Your task to perform on an android device: turn off picture-in-picture Image 0: 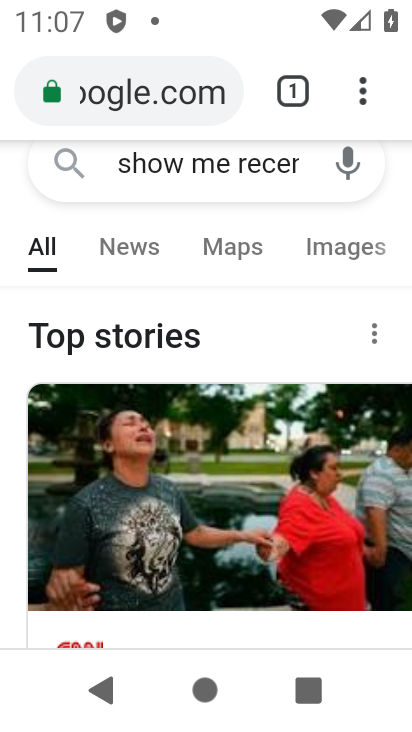
Step 0: press home button
Your task to perform on an android device: turn off picture-in-picture Image 1: 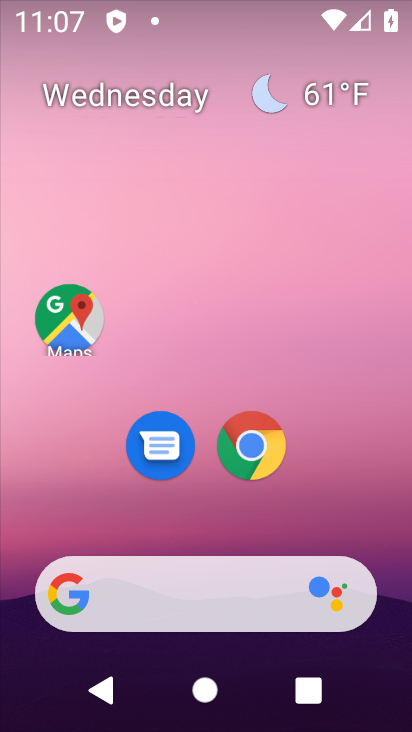
Step 1: drag from (362, 517) to (324, 140)
Your task to perform on an android device: turn off picture-in-picture Image 2: 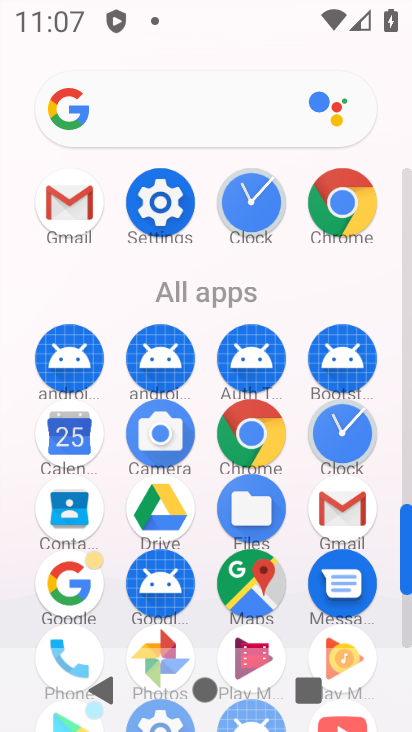
Step 2: click (155, 186)
Your task to perform on an android device: turn off picture-in-picture Image 3: 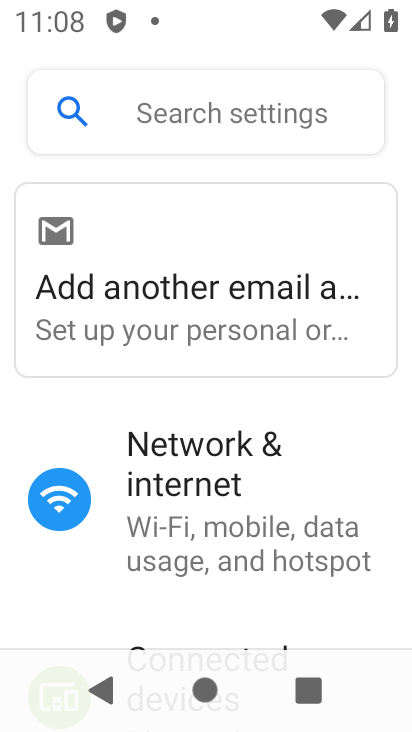
Step 3: drag from (254, 416) to (256, 280)
Your task to perform on an android device: turn off picture-in-picture Image 4: 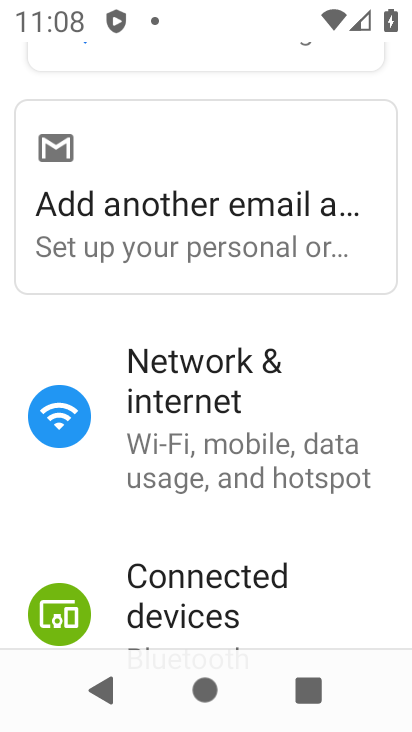
Step 4: drag from (288, 638) to (271, 298)
Your task to perform on an android device: turn off picture-in-picture Image 5: 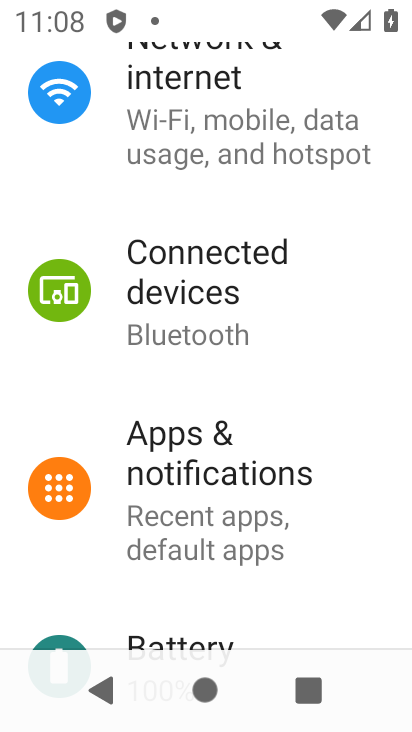
Step 5: click (215, 525)
Your task to perform on an android device: turn off picture-in-picture Image 6: 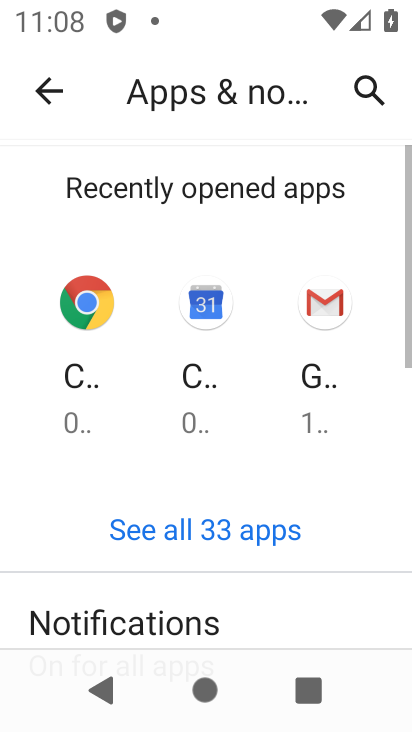
Step 6: drag from (242, 631) to (257, 240)
Your task to perform on an android device: turn off picture-in-picture Image 7: 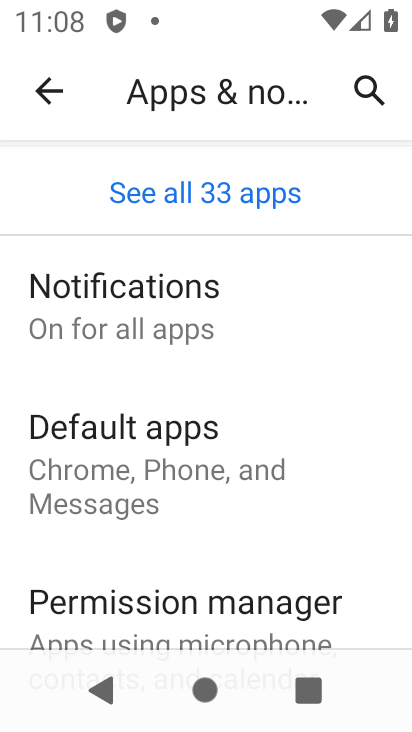
Step 7: drag from (282, 551) to (280, 234)
Your task to perform on an android device: turn off picture-in-picture Image 8: 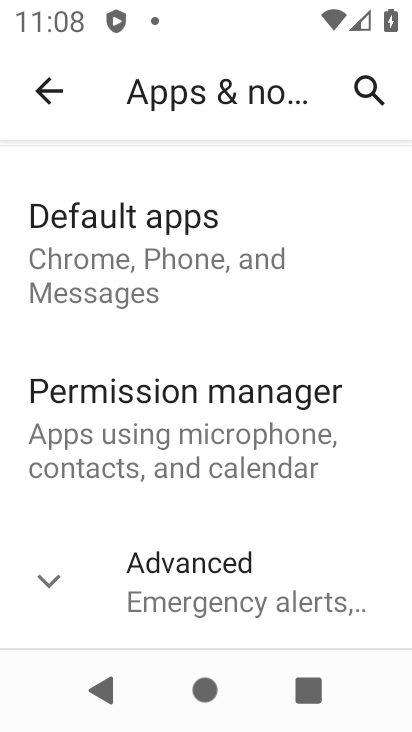
Step 8: drag from (296, 568) to (293, 237)
Your task to perform on an android device: turn off picture-in-picture Image 9: 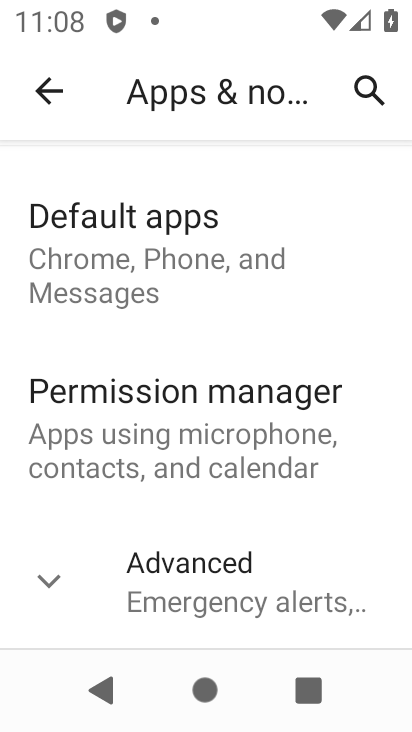
Step 9: click (243, 576)
Your task to perform on an android device: turn off picture-in-picture Image 10: 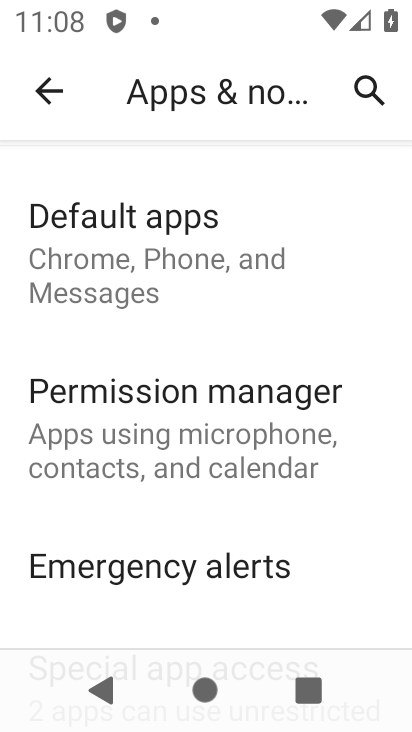
Step 10: drag from (251, 592) to (268, 259)
Your task to perform on an android device: turn off picture-in-picture Image 11: 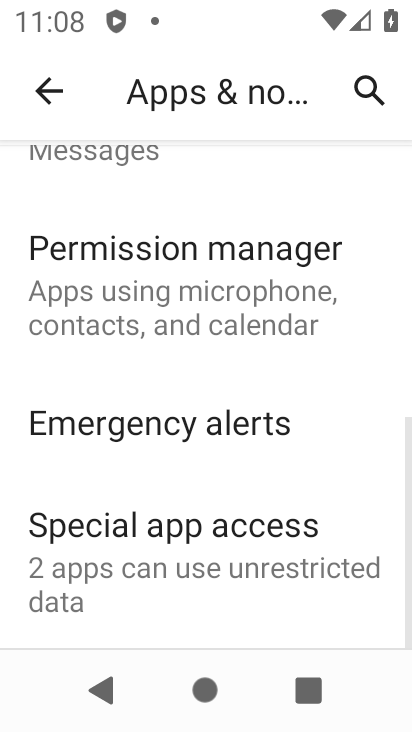
Step 11: drag from (248, 564) to (245, 236)
Your task to perform on an android device: turn off picture-in-picture Image 12: 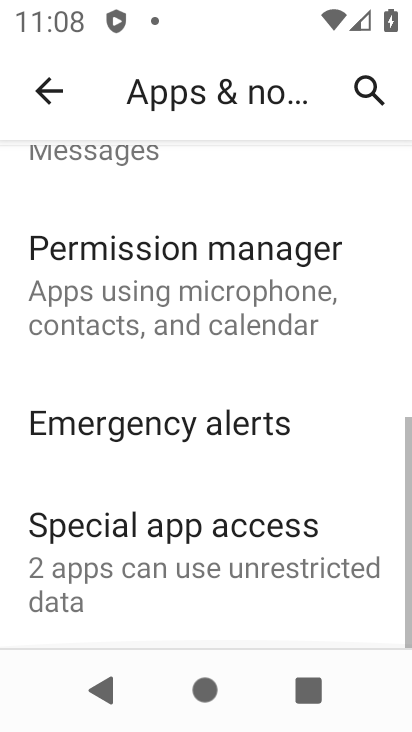
Step 12: click (232, 529)
Your task to perform on an android device: turn off picture-in-picture Image 13: 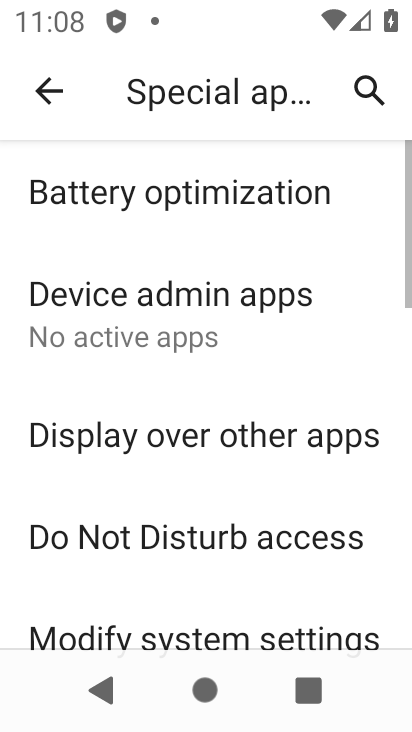
Step 13: drag from (232, 561) to (227, 265)
Your task to perform on an android device: turn off picture-in-picture Image 14: 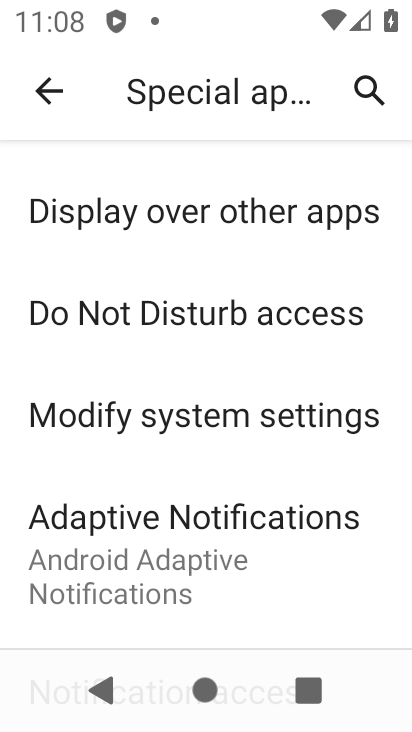
Step 14: drag from (237, 485) to (238, 141)
Your task to perform on an android device: turn off picture-in-picture Image 15: 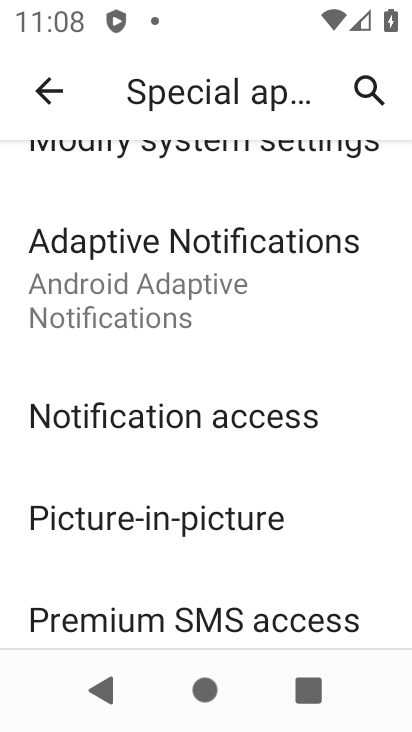
Step 15: click (230, 540)
Your task to perform on an android device: turn off picture-in-picture Image 16: 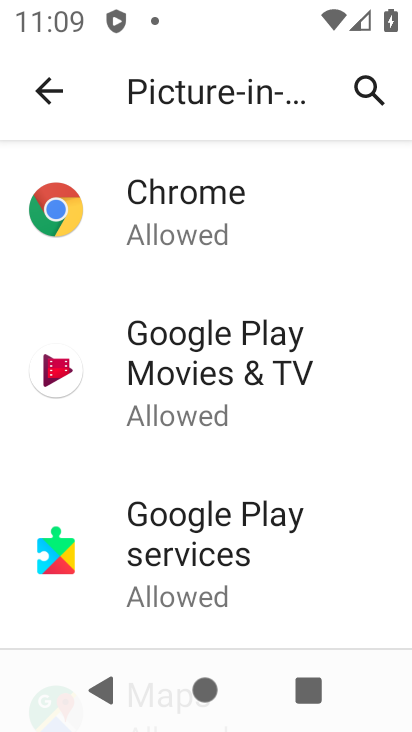
Step 16: click (210, 219)
Your task to perform on an android device: turn off picture-in-picture Image 17: 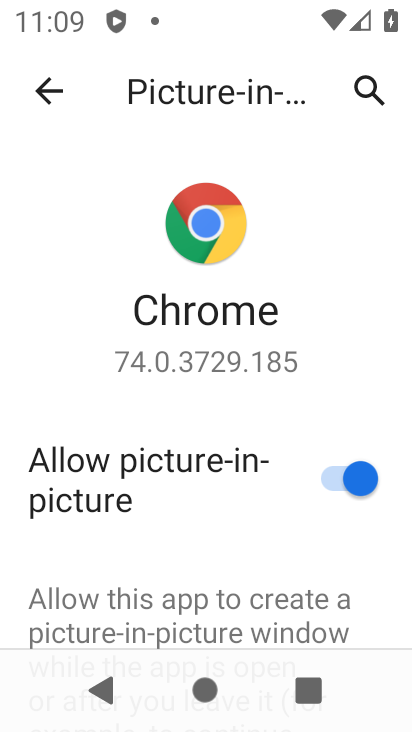
Step 17: click (327, 486)
Your task to perform on an android device: turn off picture-in-picture Image 18: 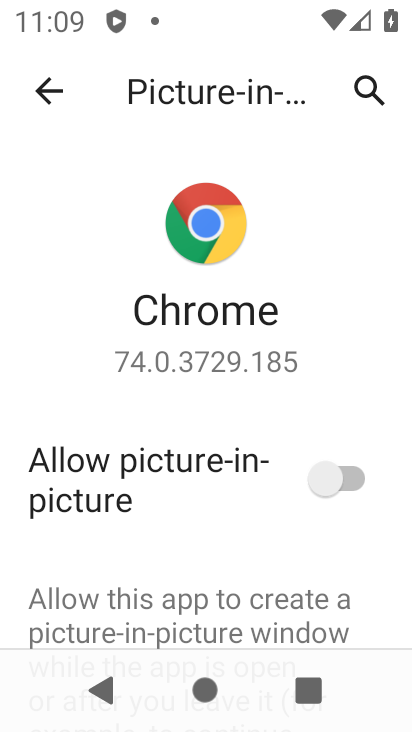
Step 18: task complete